Your task to perform on an android device: empty trash in google photos Image 0: 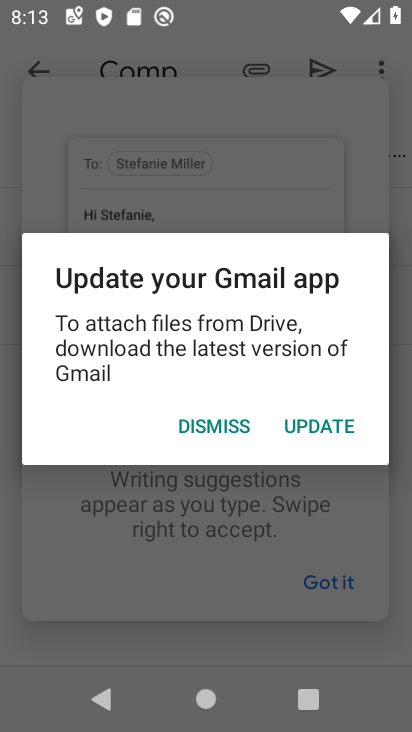
Step 0: press home button
Your task to perform on an android device: empty trash in google photos Image 1: 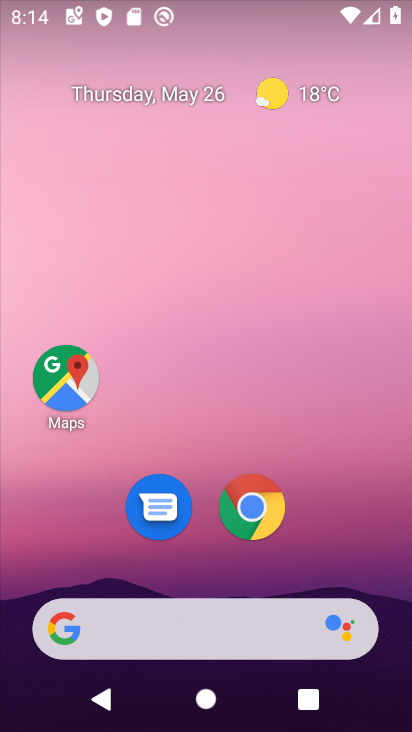
Step 1: drag from (264, 640) to (196, 160)
Your task to perform on an android device: empty trash in google photos Image 2: 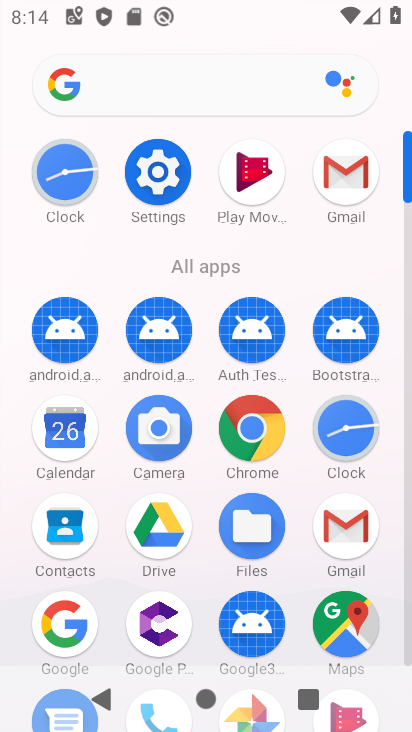
Step 2: drag from (210, 554) to (177, 451)
Your task to perform on an android device: empty trash in google photos Image 3: 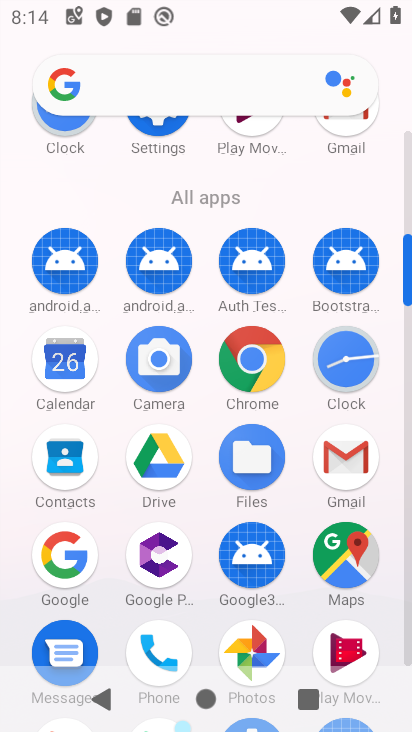
Step 3: click (260, 633)
Your task to perform on an android device: empty trash in google photos Image 4: 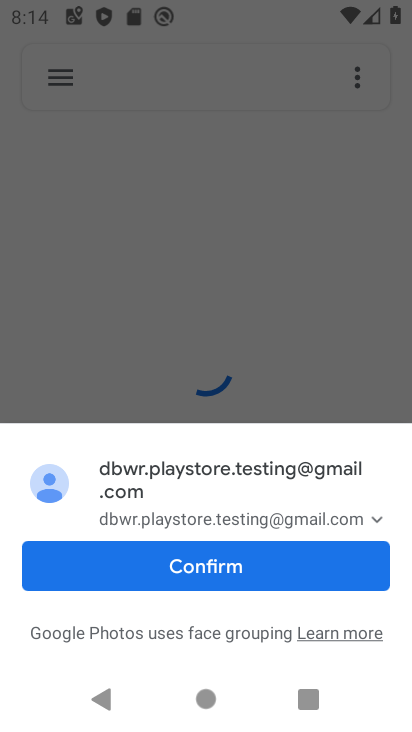
Step 4: click (42, 80)
Your task to perform on an android device: empty trash in google photos Image 5: 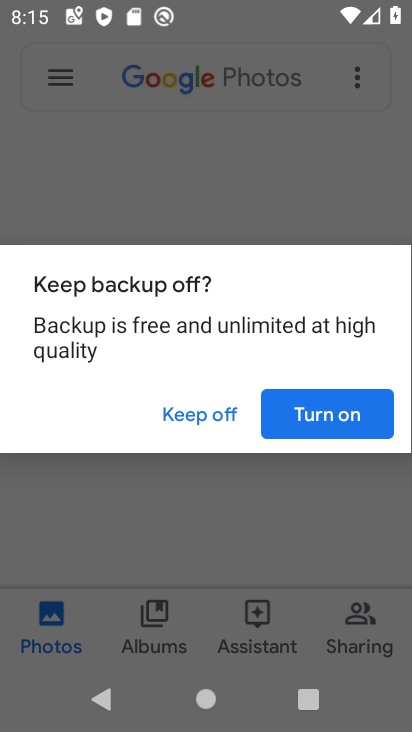
Step 5: click (297, 414)
Your task to perform on an android device: empty trash in google photos Image 6: 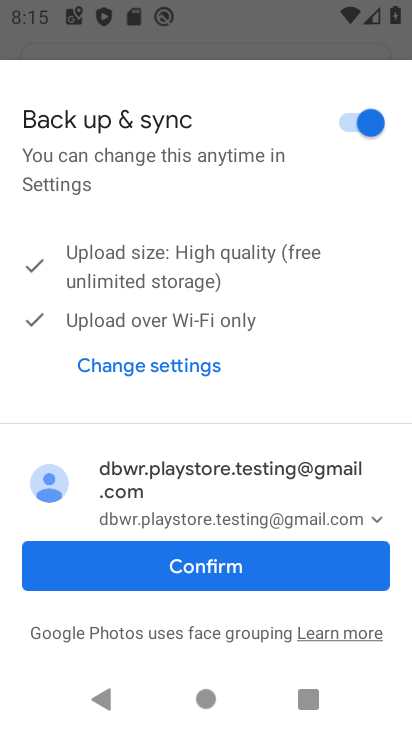
Step 6: click (43, 81)
Your task to perform on an android device: empty trash in google photos Image 7: 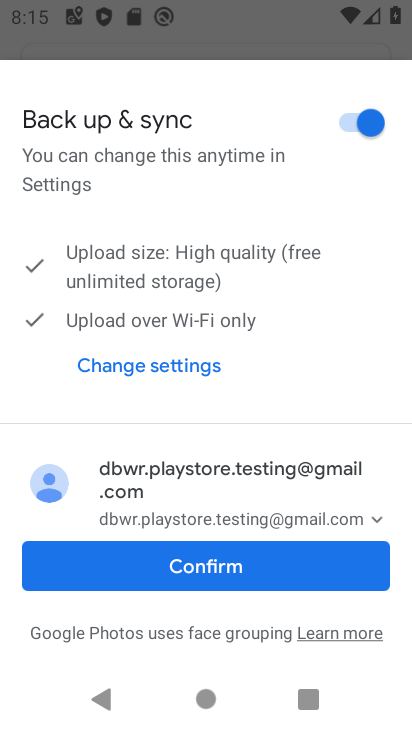
Step 7: click (228, 558)
Your task to perform on an android device: empty trash in google photos Image 8: 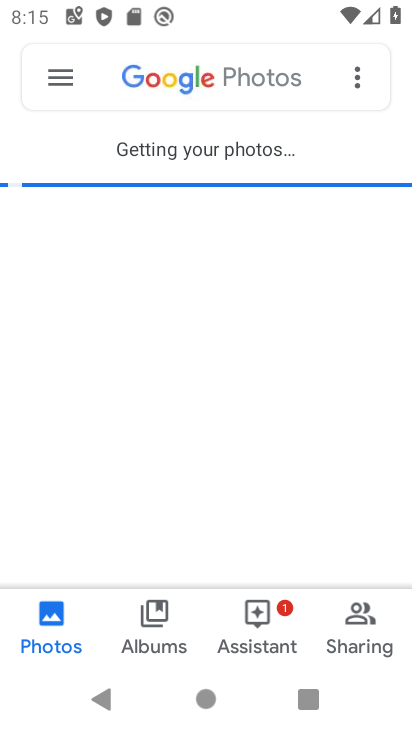
Step 8: click (62, 99)
Your task to perform on an android device: empty trash in google photos Image 9: 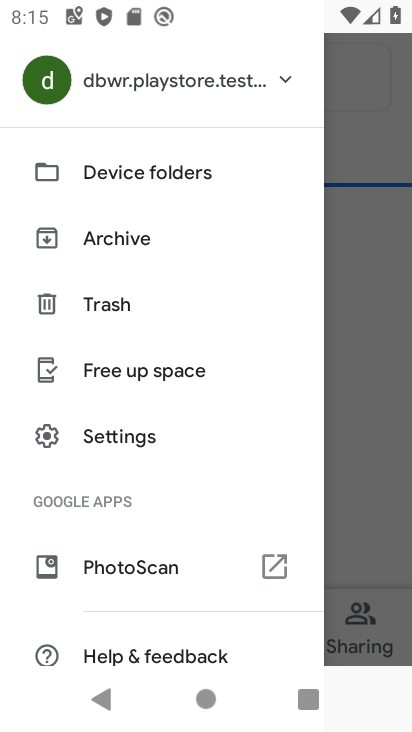
Step 9: click (119, 311)
Your task to perform on an android device: empty trash in google photos Image 10: 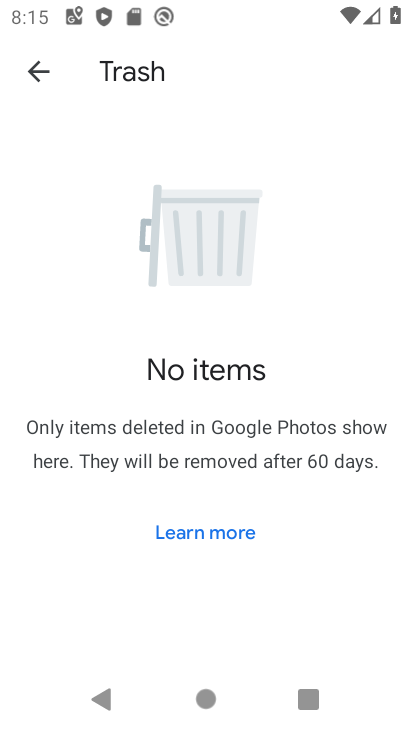
Step 10: task complete